Your task to perform on an android device: change the clock style Image 0: 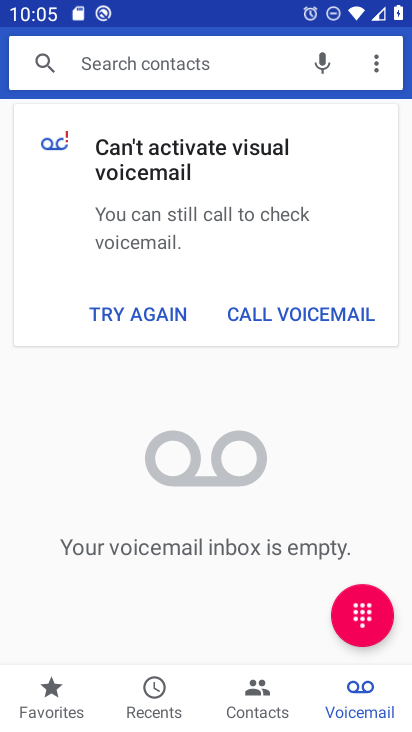
Step 0: press home button
Your task to perform on an android device: change the clock style Image 1: 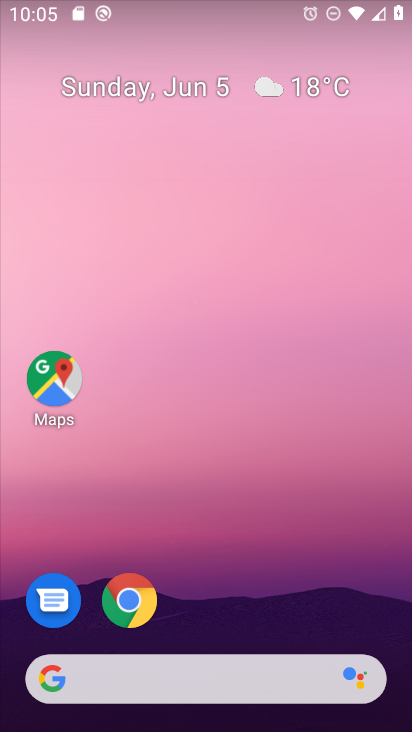
Step 1: drag from (258, 566) to (243, 46)
Your task to perform on an android device: change the clock style Image 2: 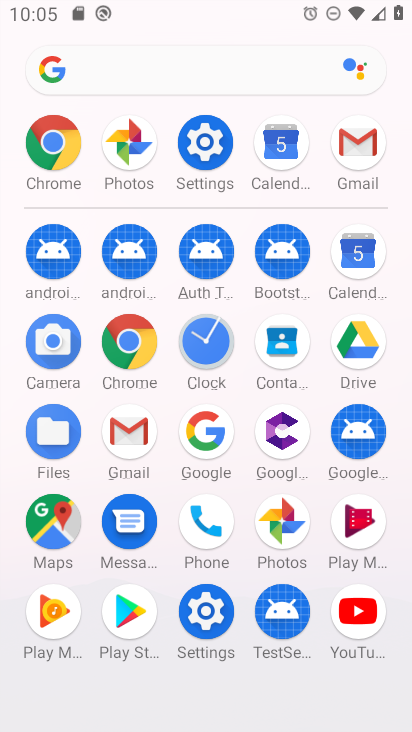
Step 2: click (204, 333)
Your task to perform on an android device: change the clock style Image 3: 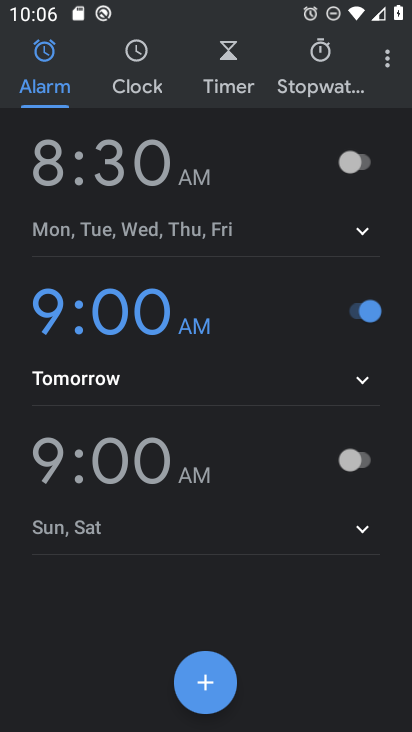
Step 3: click (138, 56)
Your task to perform on an android device: change the clock style Image 4: 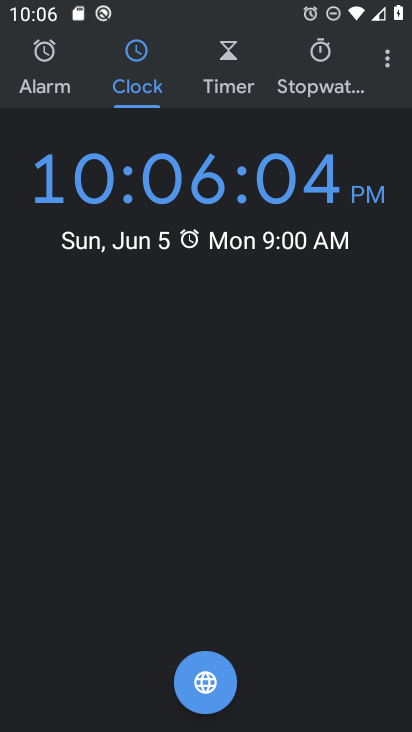
Step 4: click (381, 54)
Your task to perform on an android device: change the clock style Image 5: 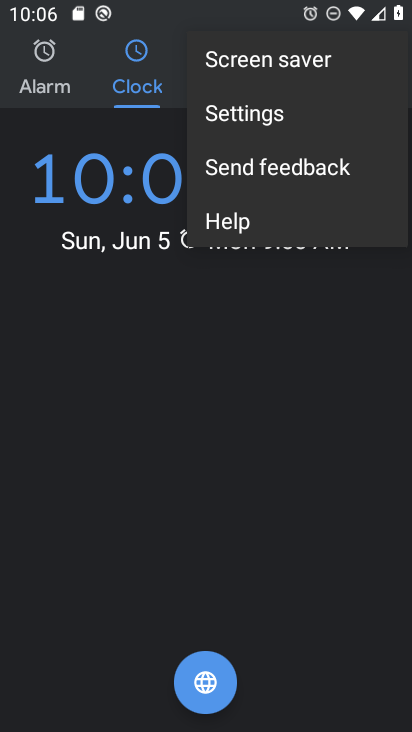
Step 5: click (303, 123)
Your task to perform on an android device: change the clock style Image 6: 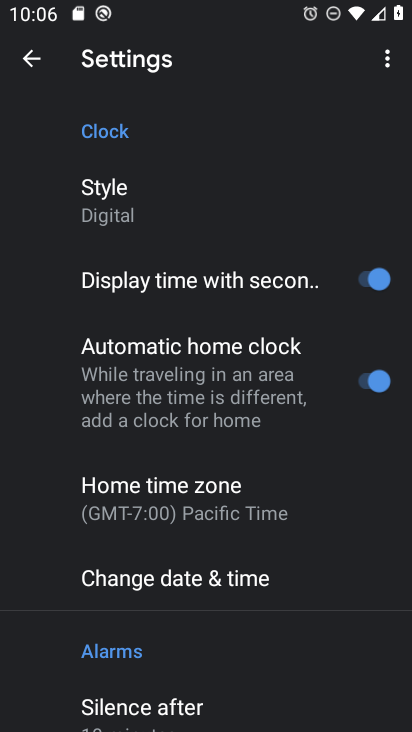
Step 6: click (175, 205)
Your task to perform on an android device: change the clock style Image 7: 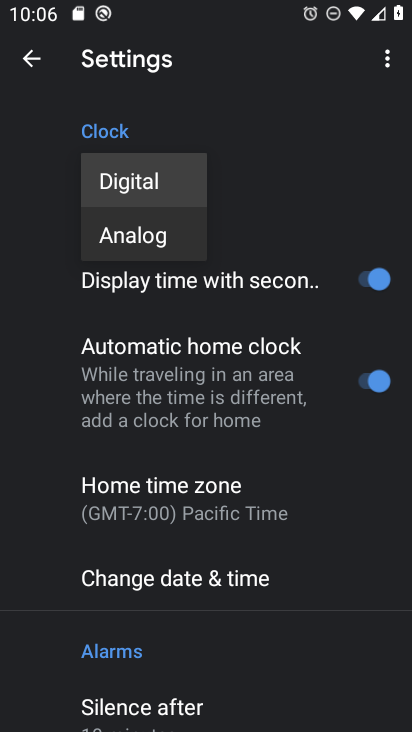
Step 7: click (172, 245)
Your task to perform on an android device: change the clock style Image 8: 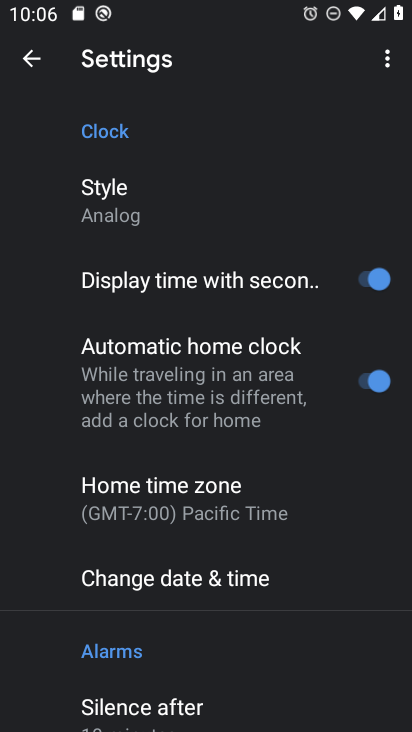
Step 8: click (32, 64)
Your task to perform on an android device: change the clock style Image 9: 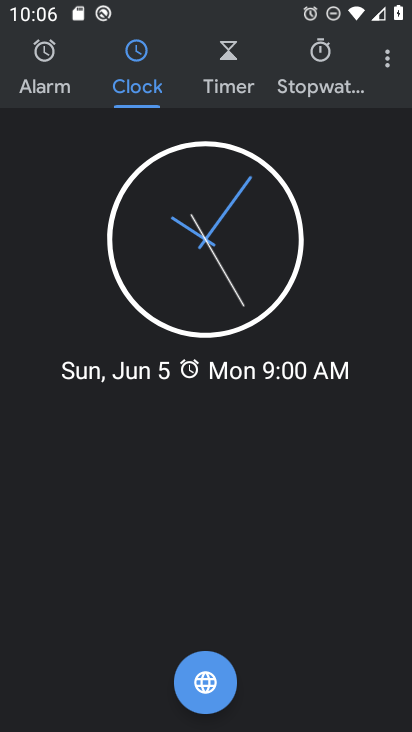
Step 9: task complete